Your task to perform on an android device: add a label to a message in the gmail app Image 0: 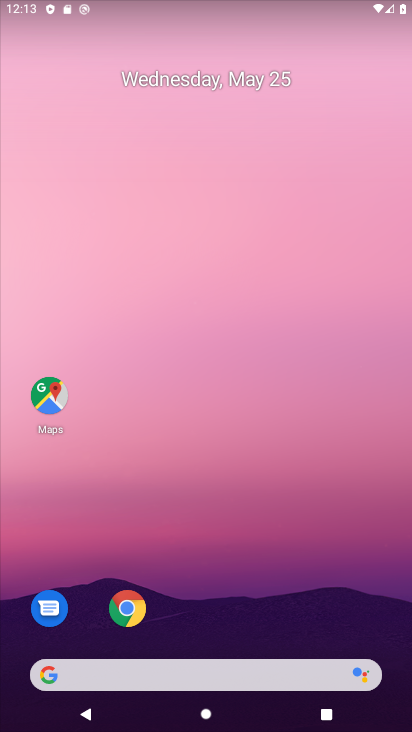
Step 0: drag from (246, 598) to (312, 89)
Your task to perform on an android device: add a label to a message in the gmail app Image 1: 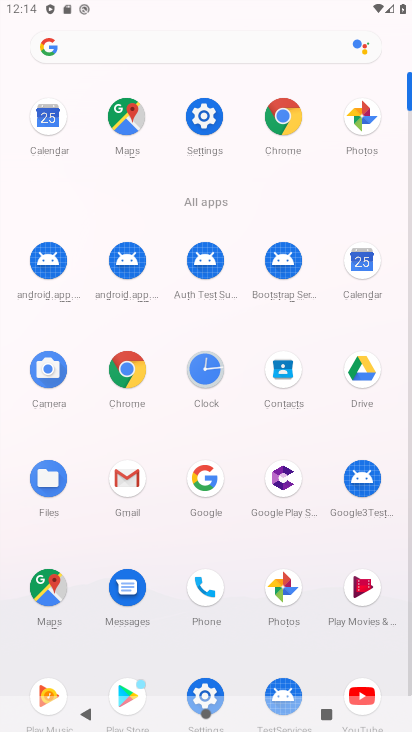
Step 1: click (132, 474)
Your task to perform on an android device: add a label to a message in the gmail app Image 2: 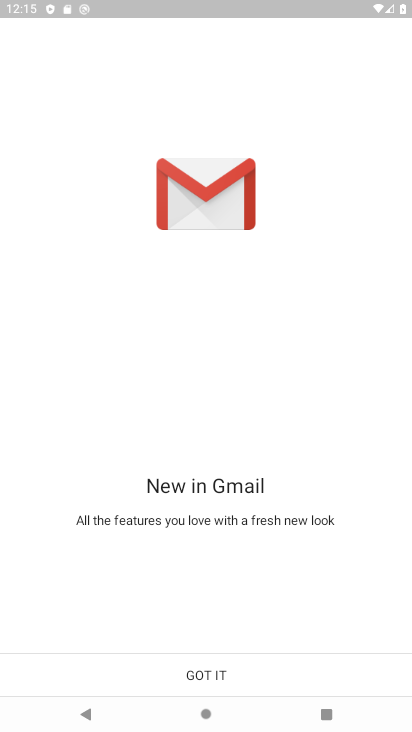
Step 2: click (175, 687)
Your task to perform on an android device: add a label to a message in the gmail app Image 3: 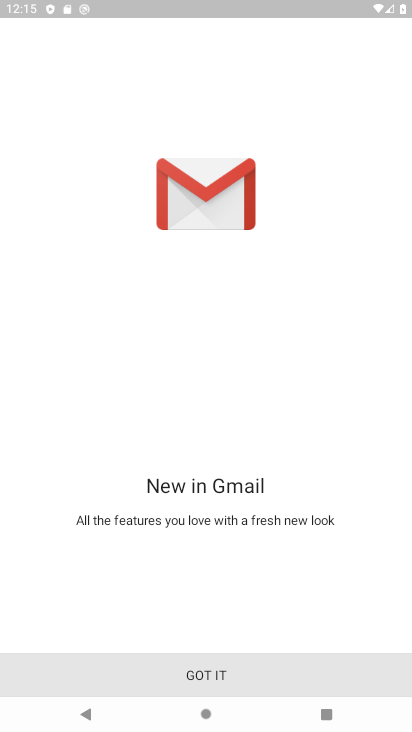
Step 3: click (175, 687)
Your task to perform on an android device: add a label to a message in the gmail app Image 4: 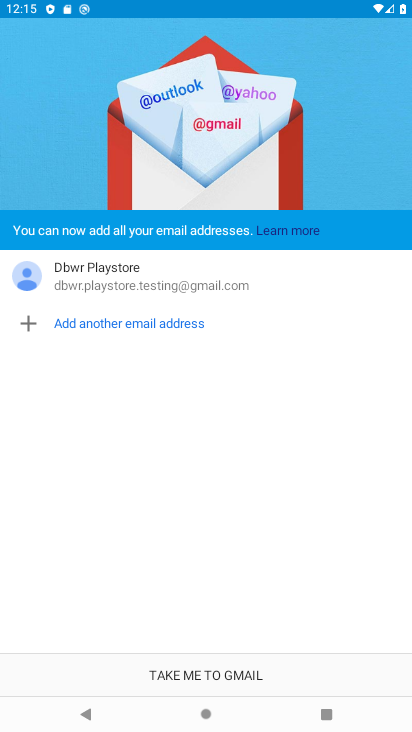
Step 4: click (175, 686)
Your task to perform on an android device: add a label to a message in the gmail app Image 5: 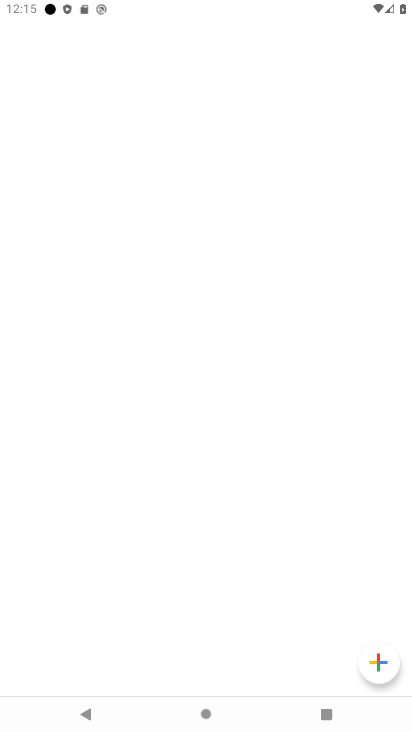
Step 5: click (181, 679)
Your task to perform on an android device: add a label to a message in the gmail app Image 6: 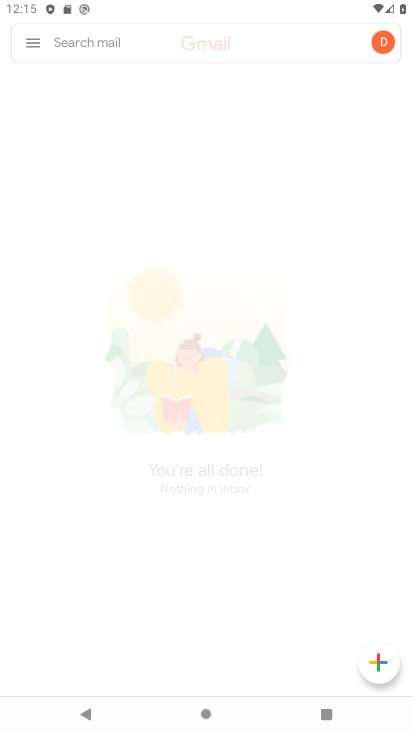
Step 6: task complete